Your task to perform on an android device: Open notification settings Image 0: 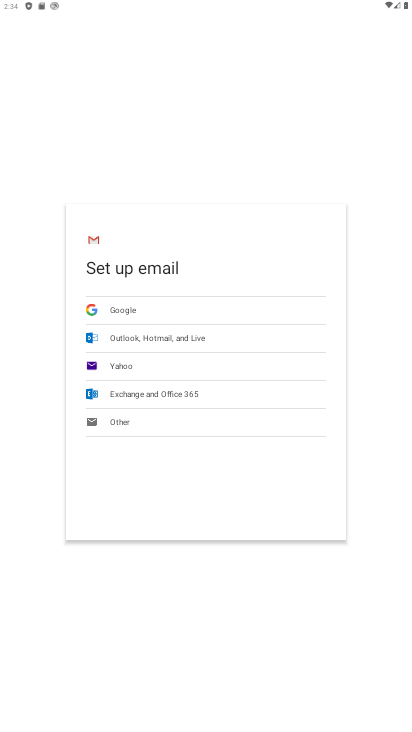
Step 0: press home button
Your task to perform on an android device: Open notification settings Image 1: 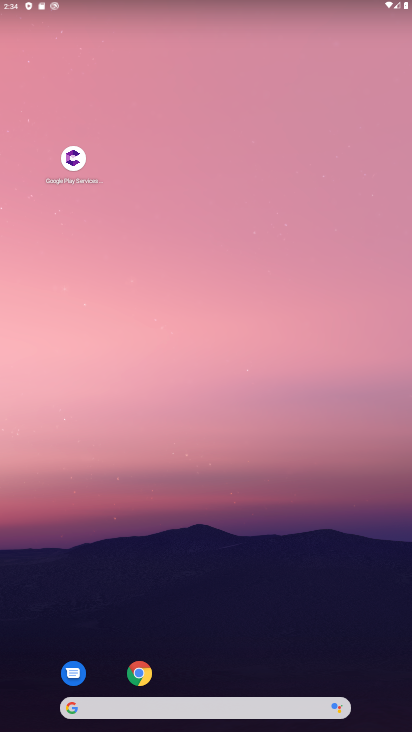
Step 1: drag from (231, 661) to (187, 23)
Your task to perform on an android device: Open notification settings Image 2: 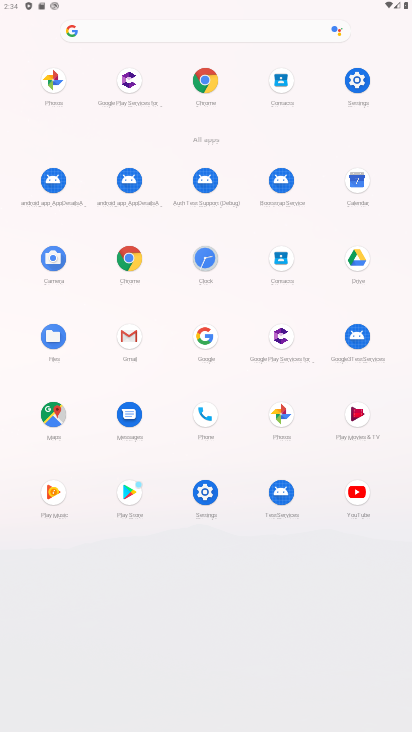
Step 2: click (203, 497)
Your task to perform on an android device: Open notification settings Image 3: 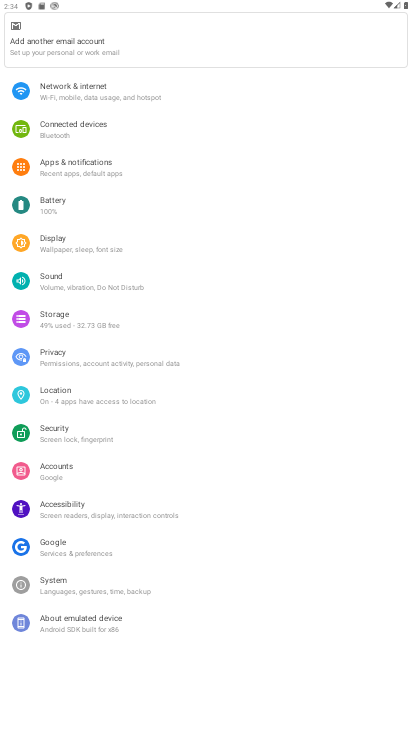
Step 3: click (93, 176)
Your task to perform on an android device: Open notification settings Image 4: 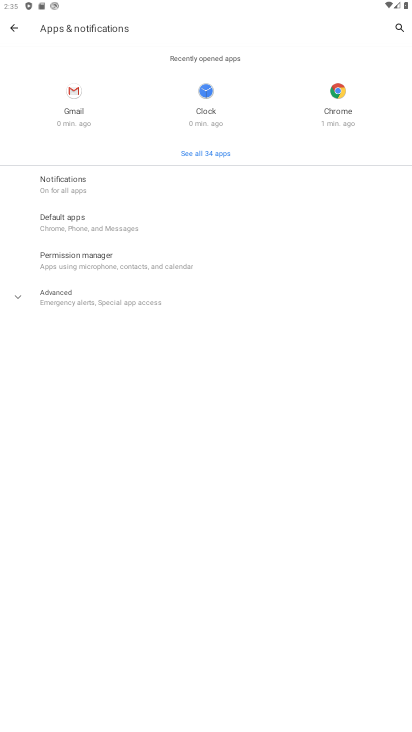
Step 4: click (88, 185)
Your task to perform on an android device: Open notification settings Image 5: 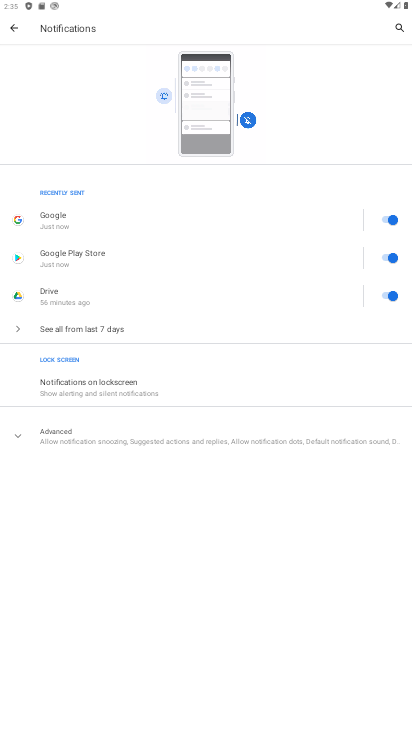
Step 5: task complete